Your task to perform on an android device: open app "Booking.com: Hotels and more" Image 0: 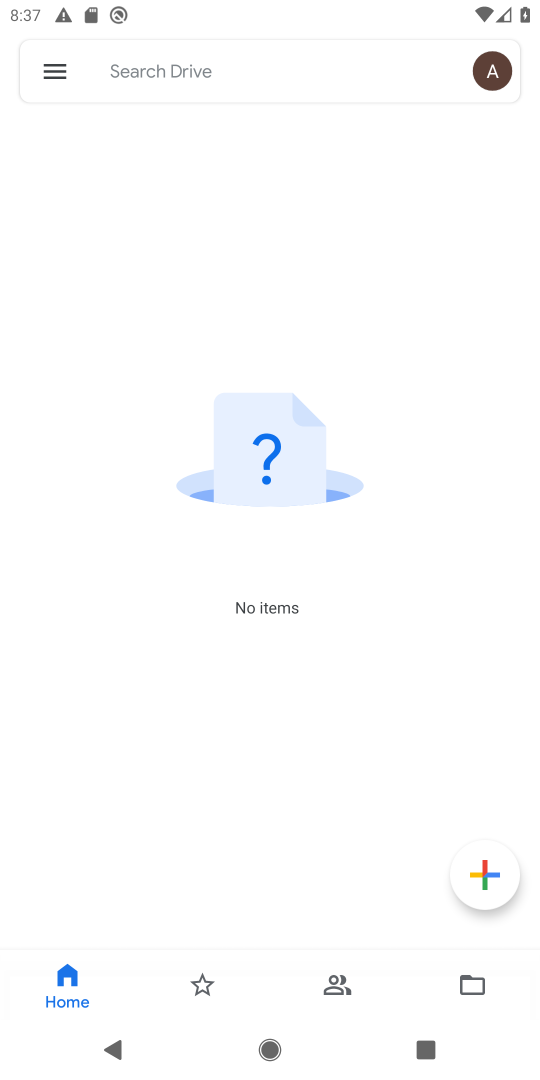
Step 0: press home button
Your task to perform on an android device: open app "Booking.com: Hotels and more" Image 1: 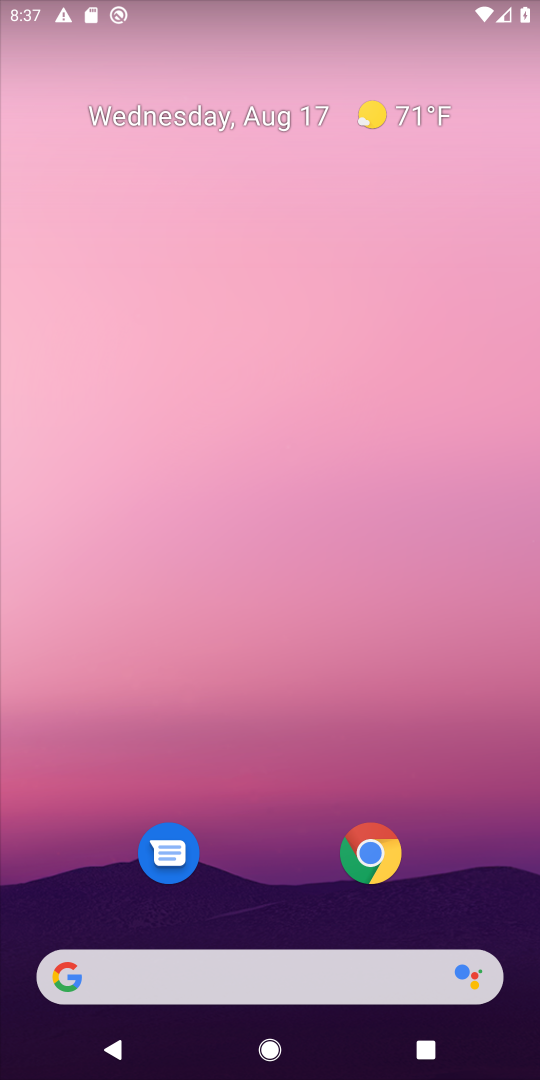
Step 1: drag from (261, 807) to (268, 249)
Your task to perform on an android device: open app "Booking.com: Hotels and more" Image 2: 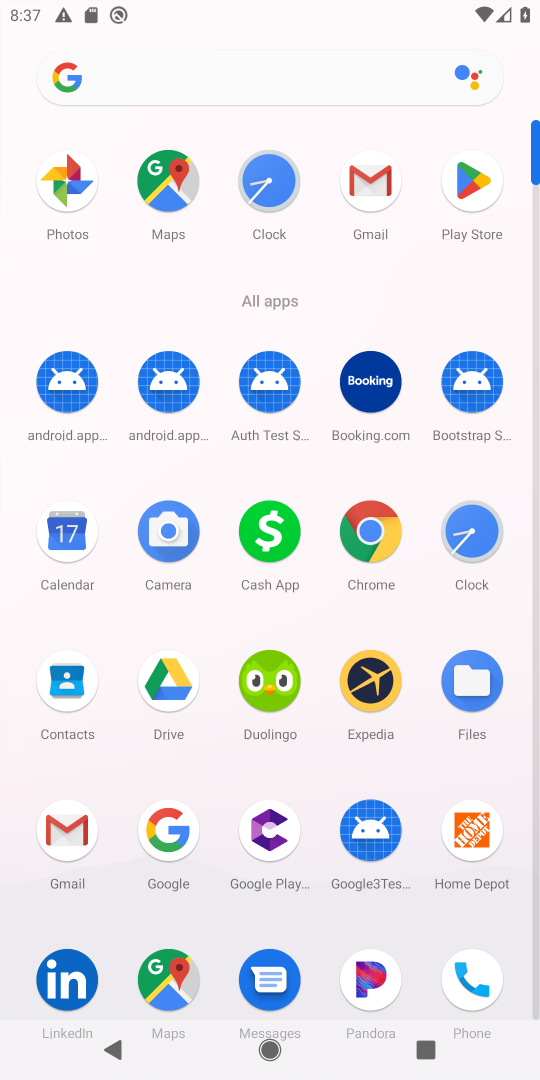
Step 2: click (456, 175)
Your task to perform on an android device: open app "Booking.com: Hotels and more" Image 3: 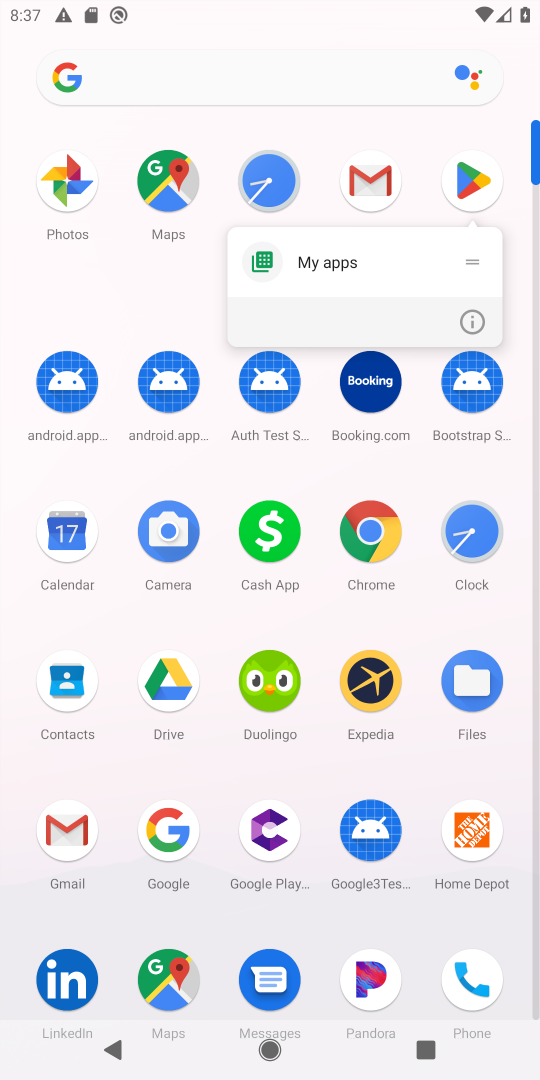
Step 3: click (470, 163)
Your task to perform on an android device: open app "Booking.com: Hotels and more" Image 4: 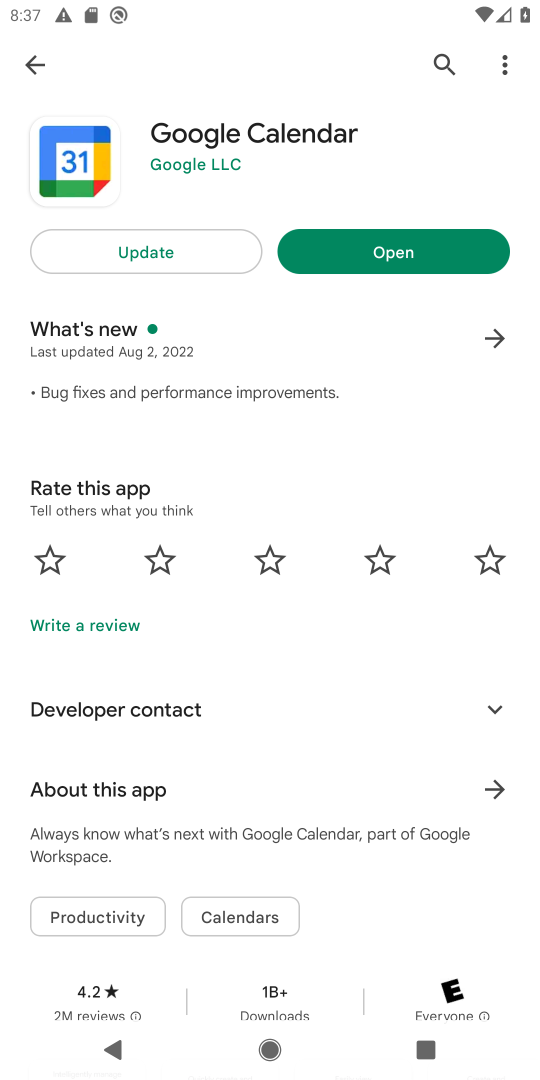
Step 4: click (445, 66)
Your task to perform on an android device: open app "Booking.com: Hotels and more" Image 5: 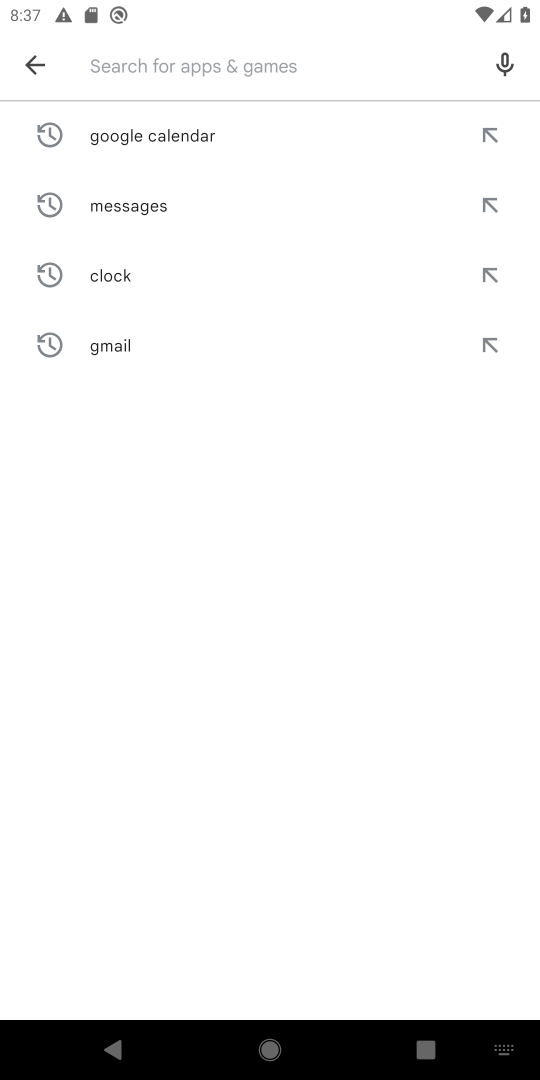
Step 5: type "Booking.com: Hotels and more"
Your task to perform on an android device: open app "Booking.com: Hotels and more" Image 6: 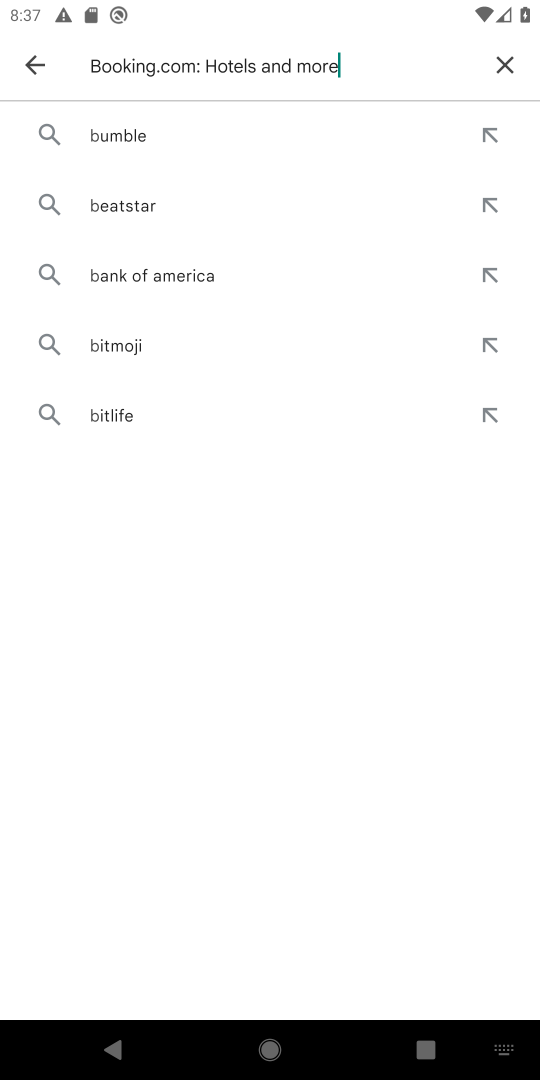
Step 6: type ""
Your task to perform on an android device: open app "Booking.com: Hotels and more" Image 7: 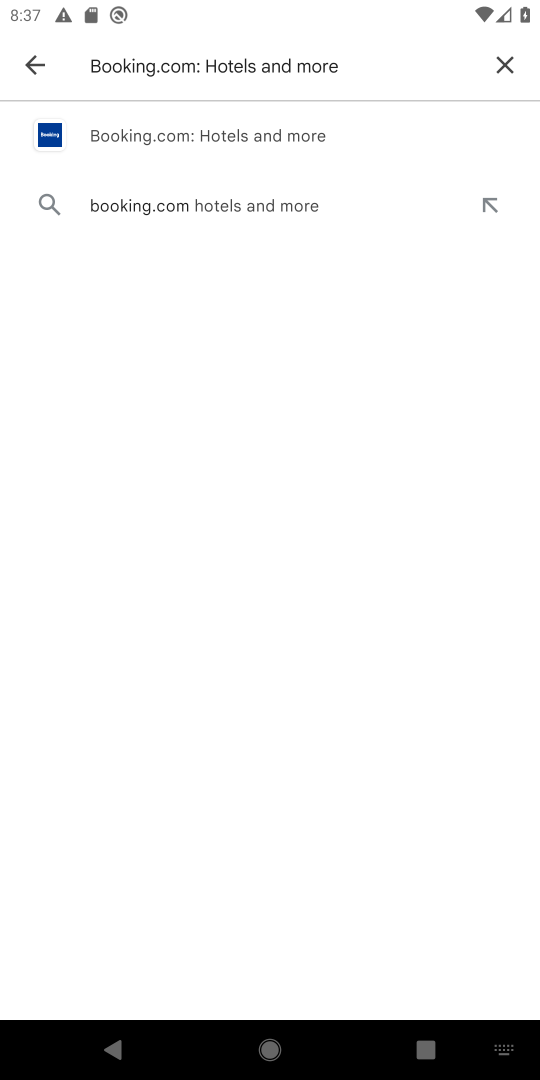
Step 7: click (270, 119)
Your task to perform on an android device: open app "Booking.com: Hotels and more" Image 8: 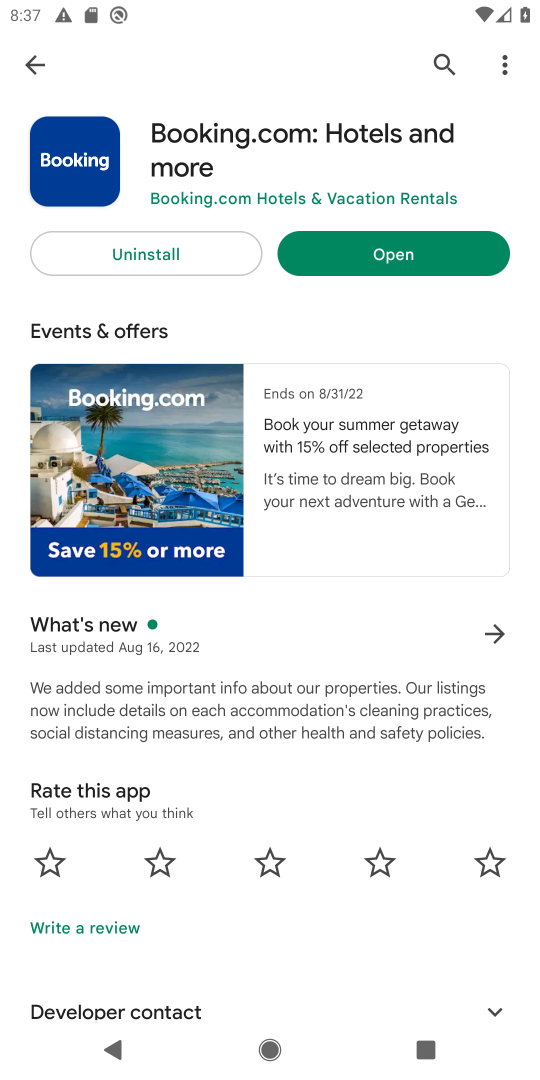
Step 8: click (401, 258)
Your task to perform on an android device: open app "Booking.com: Hotels and more" Image 9: 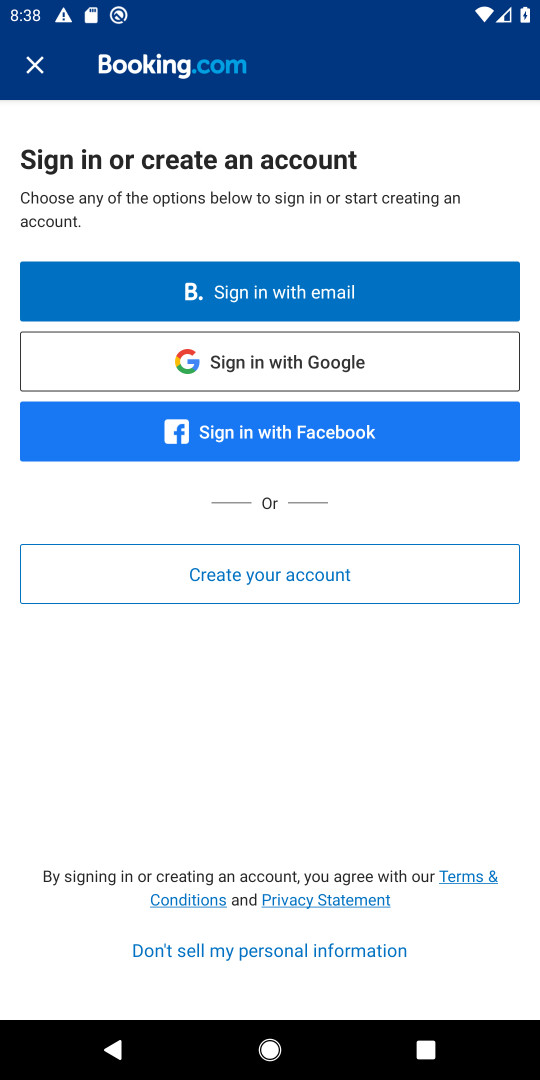
Step 9: task complete